Your task to perform on an android device: Open eBay Image 0: 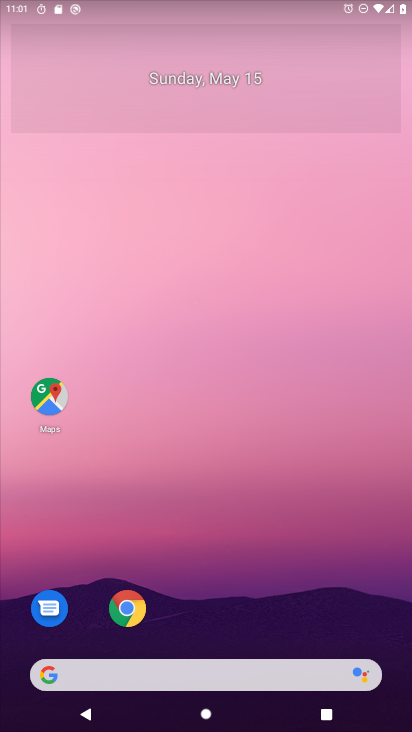
Step 0: drag from (301, 572) to (297, 148)
Your task to perform on an android device: Open eBay Image 1: 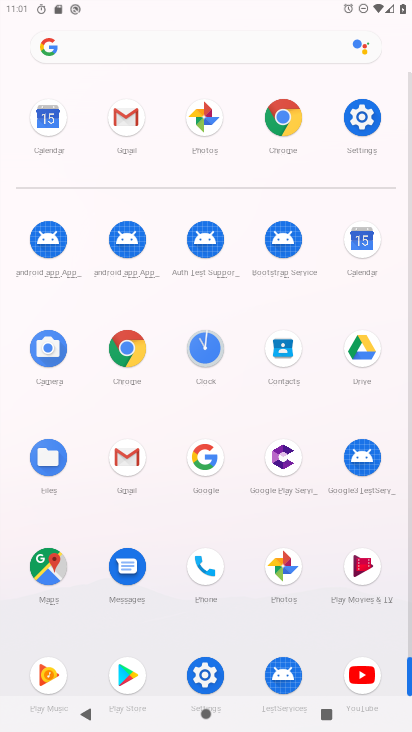
Step 1: click (109, 351)
Your task to perform on an android device: Open eBay Image 2: 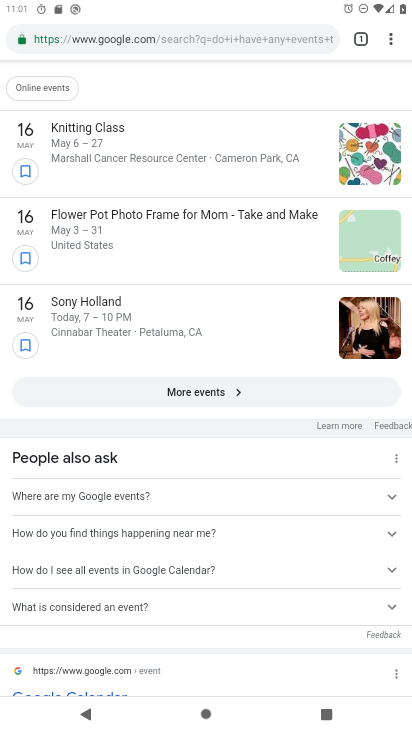
Step 2: click (192, 45)
Your task to perform on an android device: Open eBay Image 3: 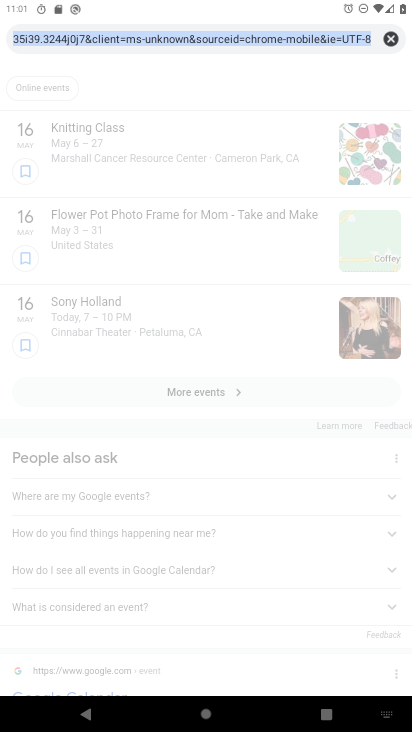
Step 3: click (387, 38)
Your task to perform on an android device: Open eBay Image 4: 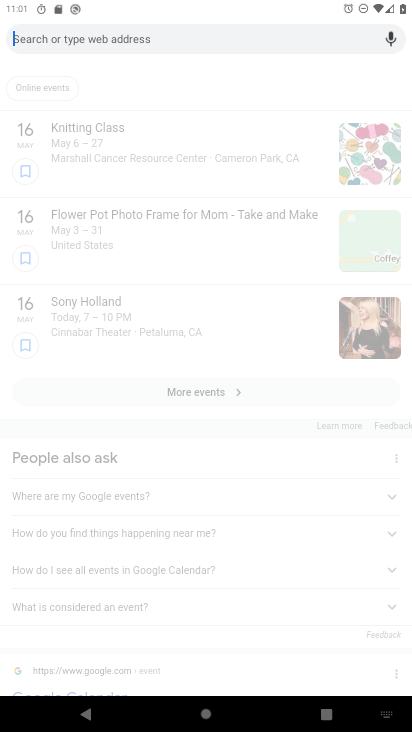
Step 4: type "ebay"
Your task to perform on an android device: Open eBay Image 5: 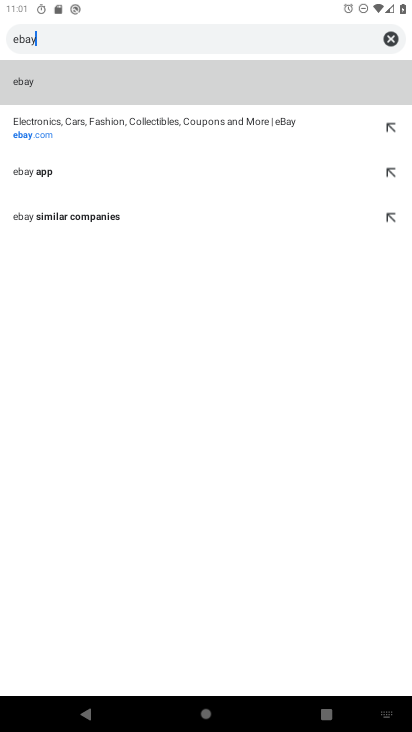
Step 5: click (49, 90)
Your task to perform on an android device: Open eBay Image 6: 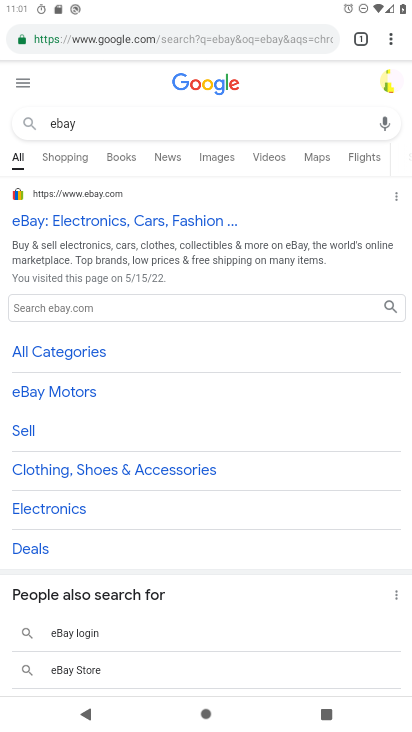
Step 6: click (183, 219)
Your task to perform on an android device: Open eBay Image 7: 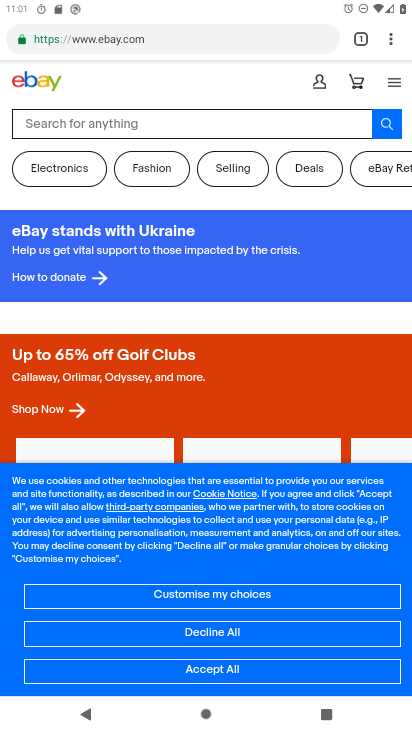
Step 7: task complete